Your task to perform on an android device: Open Youtube and go to the subscriptions tab Image 0: 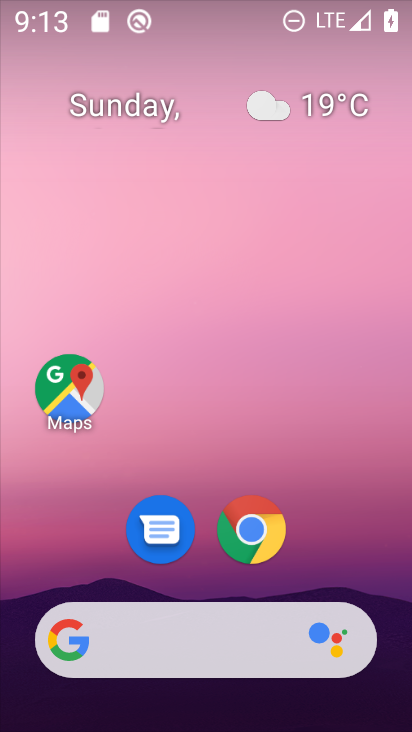
Step 0: press home button
Your task to perform on an android device: Open Youtube and go to the subscriptions tab Image 1: 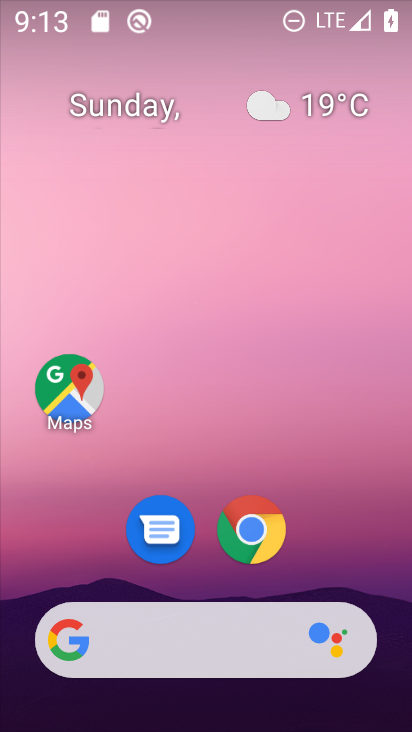
Step 1: click (250, 529)
Your task to perform on an android device: Open Youtube and go to the subscriptions tab Image 2: 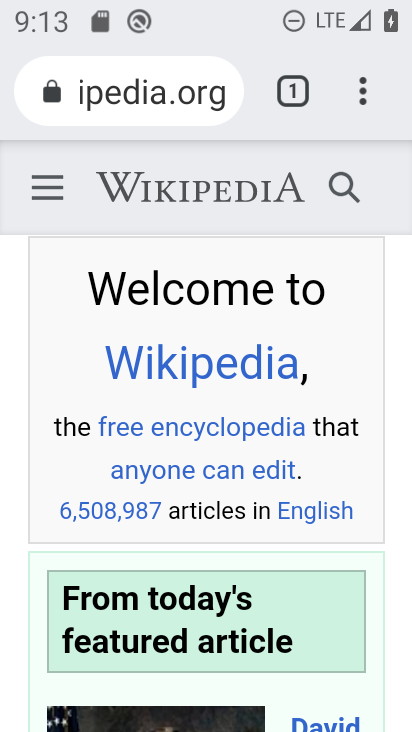
Step 2: press home button
Your task to perform on an android device: Open Youtube and go to the subscriptions tab Image 3: 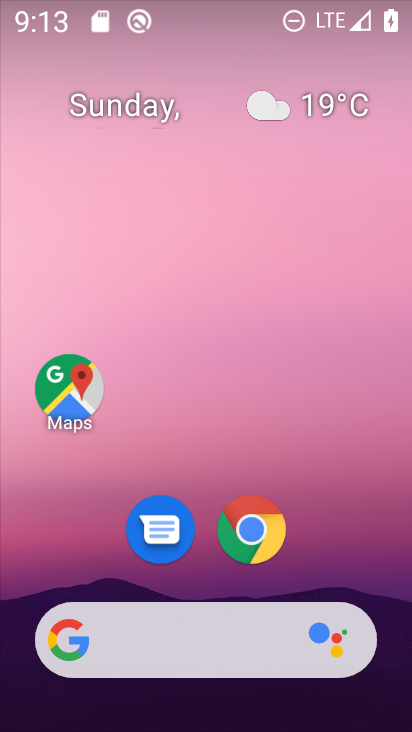
Step 3: drag from (326, 561) to (375, 10)
Your task to perform on an android device: Open Youtube and go to the subscriptions tab Image 4: 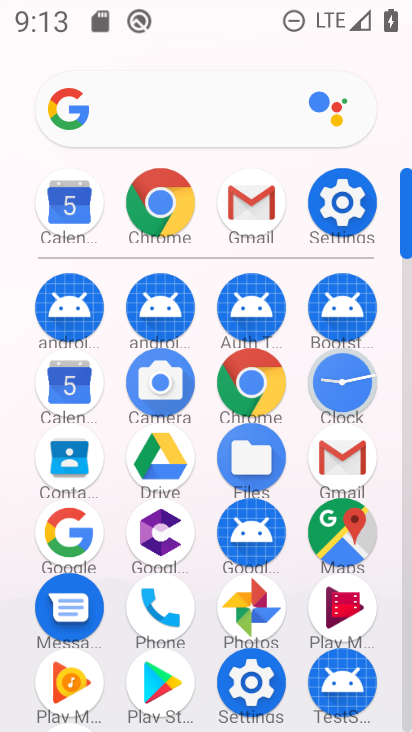
Step 4: drag from (296, 640) to (318, 139)
Your task to perform on an android device: Open Youtube and go to the subscriptions tab Image 5: 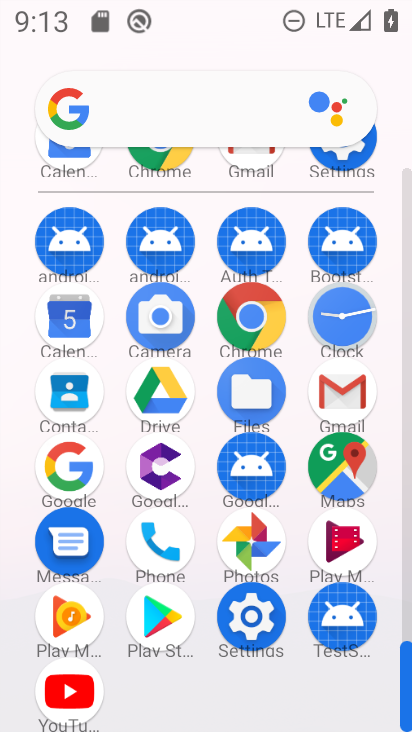
Step 5: click (66, 686)
Your task to perform on an android device: Open Youtube and go to the subscriptions tab Image 6: 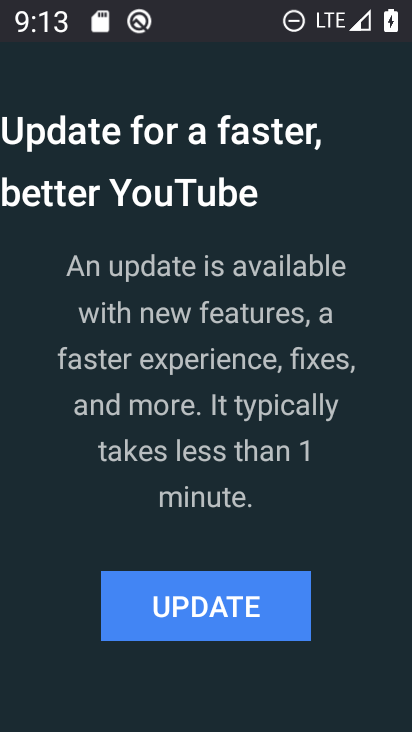
Step 6: click (204, 602)
Your task to perform on an android device: Open Youtube and go to the subscriptions tab Image 7: 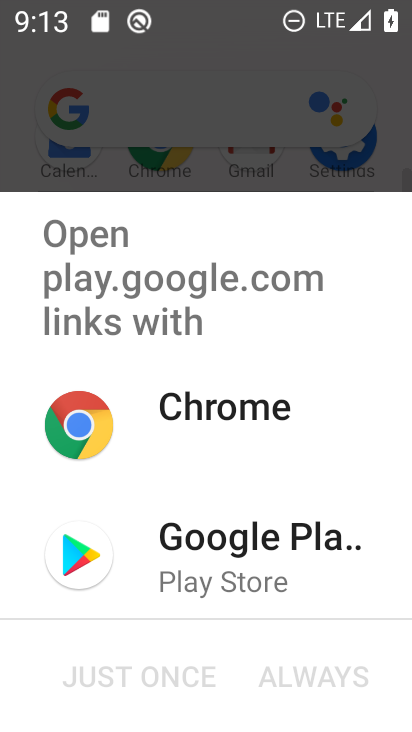
Step 7: click (128, 549)
Your task to perform on an android device: Open Youtube and go to the subscriptions tab Image 8: 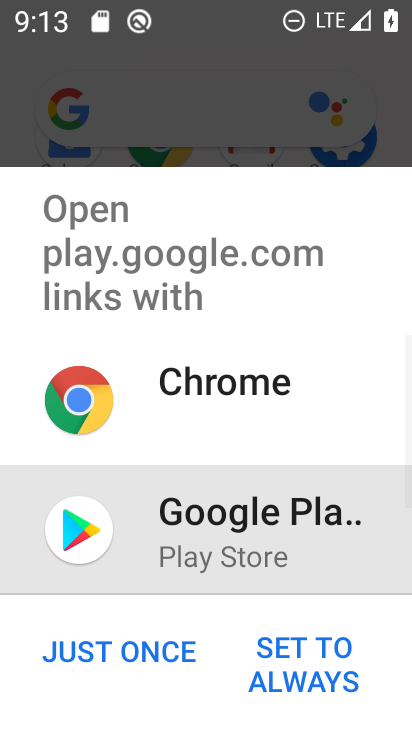
Step 8: click (108, 648)
Your task to perform on an android device: Open Youtube and go to the subscriptions tab Image 9: 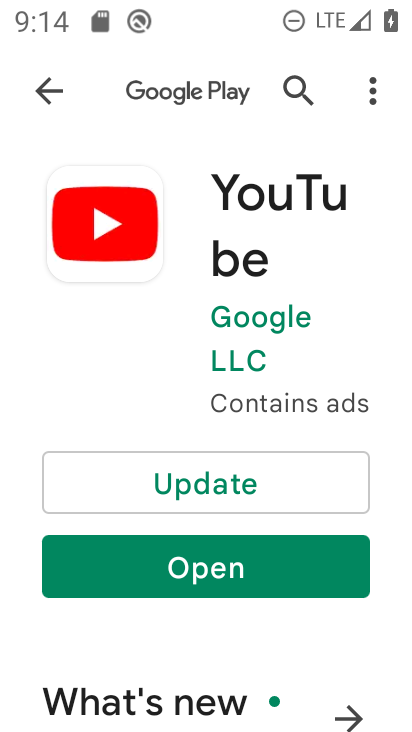
Step 9: click (220, 476)
Your task to perform on an android device: Open Youtube and go to the subscriptions tab Image 10: 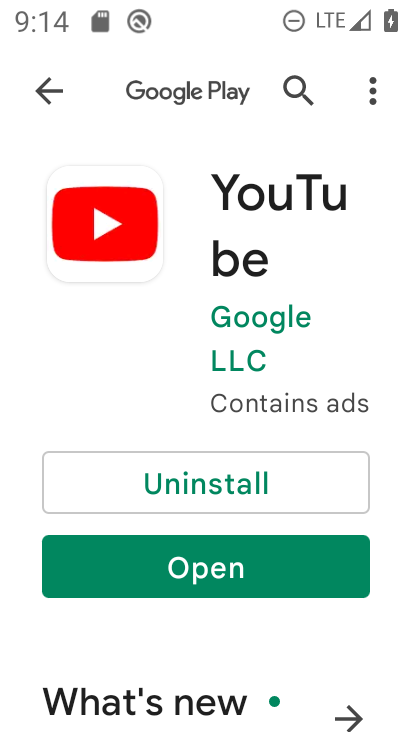
Step 10: click (220, 571)
Your task to perform on an android device: Open Youtube and go to the subscriptions tab Image 11: 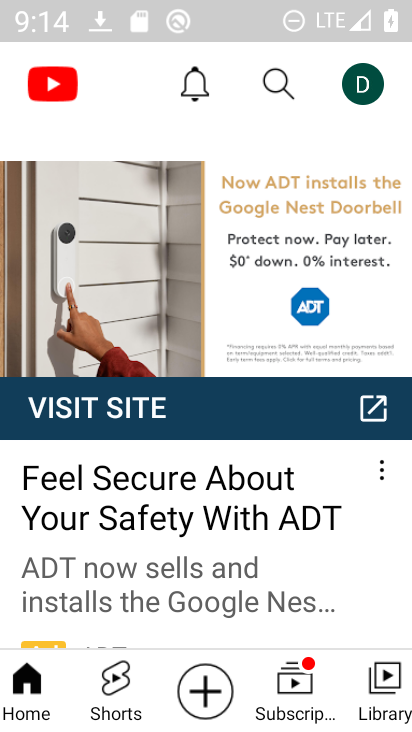
Step 11: click (295, 674)
Your task to perform on an android device: Open Youtube and go to the subscriptions tab Image 12: 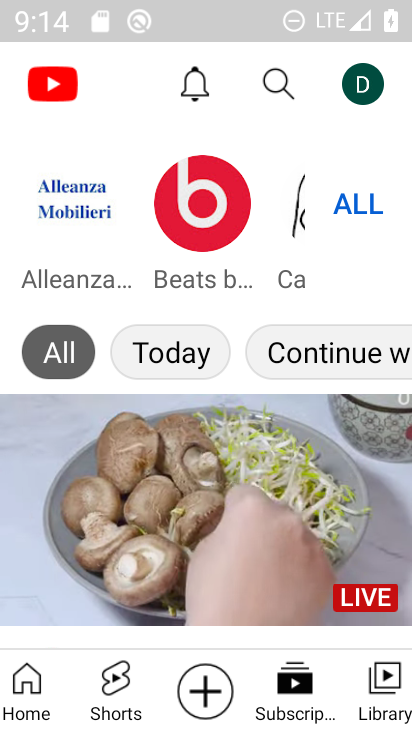
Step 12: task complete